Your task to perform on an android device: empty trash in google photos Image 0: 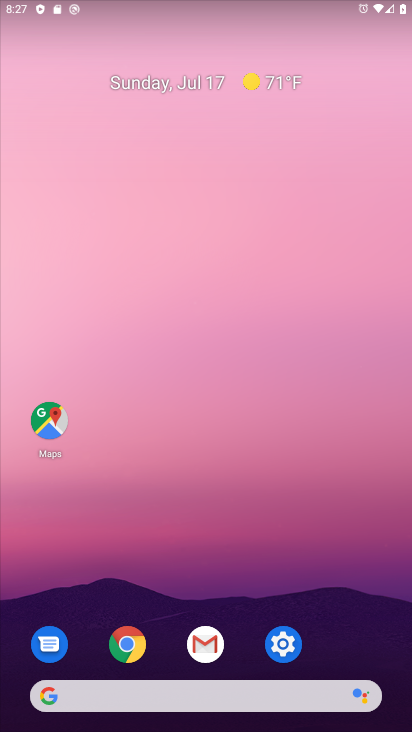
Step 0: press home button
Your task to perform on an android device: empty trash in google photos Image 1: 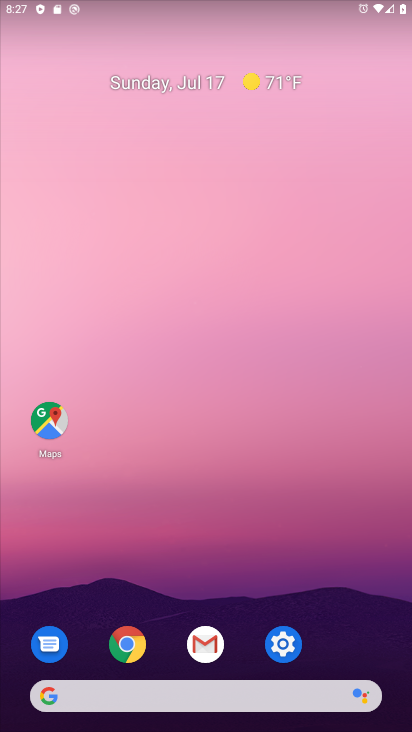
Step 1: drag from (303, 710) to (185, 278)
Your task to perform on an android device: empty trash in google photos Image 2: 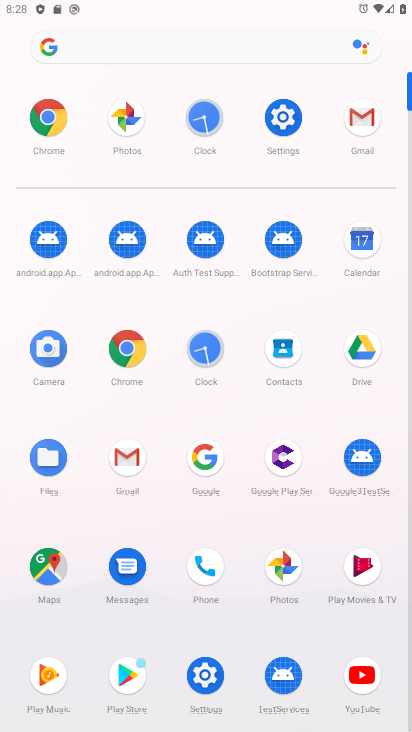
Step 2: click (286, 567)
Your task to perform on an android device: empty trash in google photos Image 3: 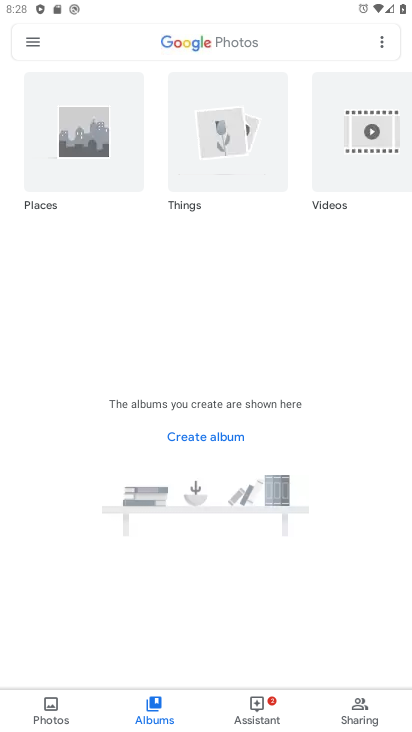
Step 3: click (34, 43)
Your task to perform on an android device: empty trash in google photos Image 4: 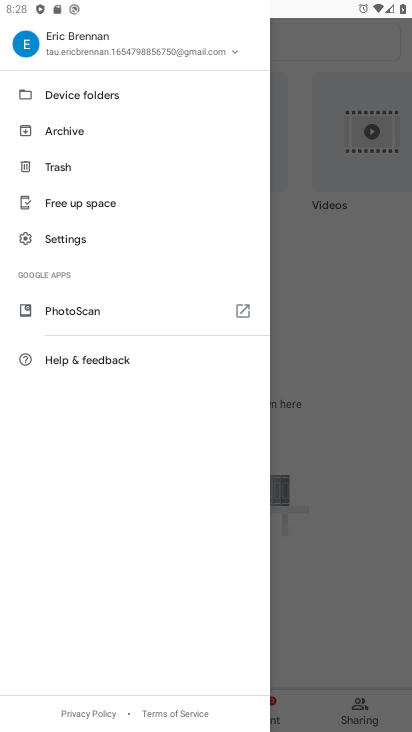
Step 4: click (90, 177)
Your task to perform on an android device: empty trash in google photos Image 5: 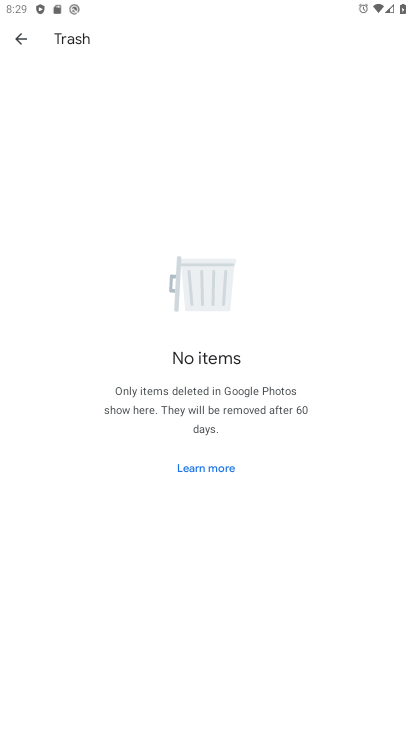
Step 5: task complete